Your task to perform on an android device: search for starred emails in the gmail app Image 0: 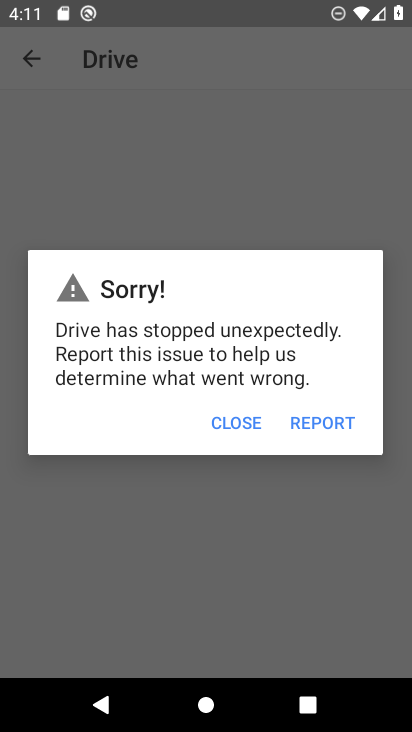
Step 0: press home button
Your task to perform on an android device: search for starred emails in the gmail app Image 1: 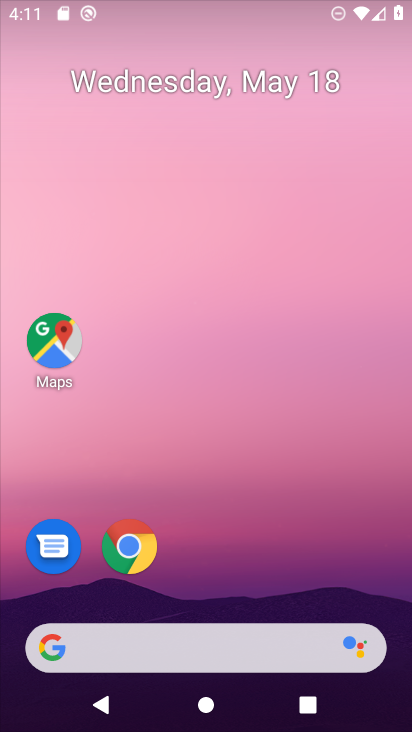
Step 1: drag from (223, 602) to (303, 116)
Your task to perform on an android device: search for starred emails in the gmail app Image 2: 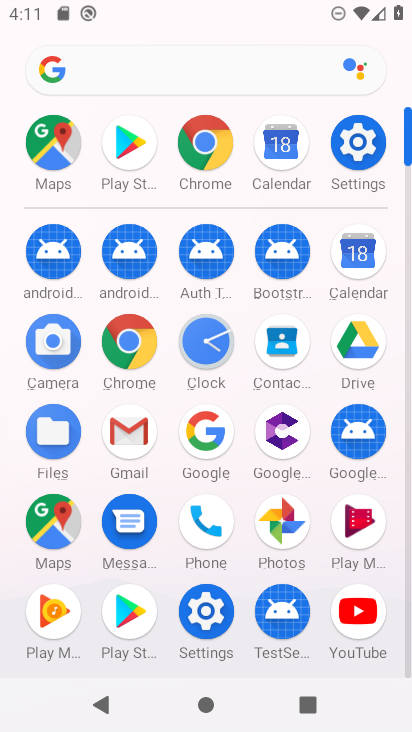
Step 2: click (139, 441)
Your task to perform on an android device: search for starred emails in the gmail app Image 3: 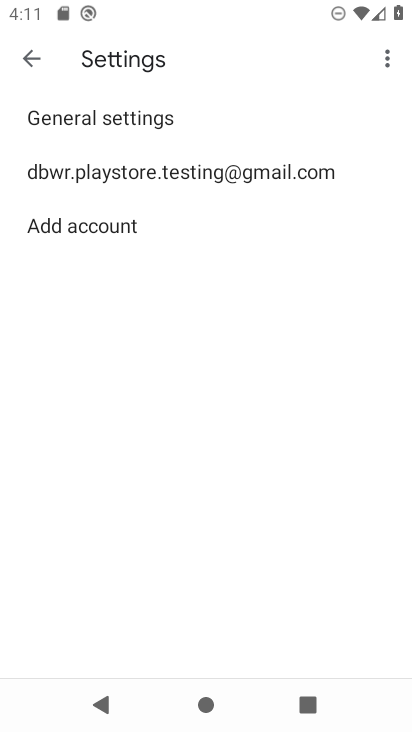
Step 3: click (37, 51)
Your task to perform on an android device: search for starred emails in the gmail app Image 4: 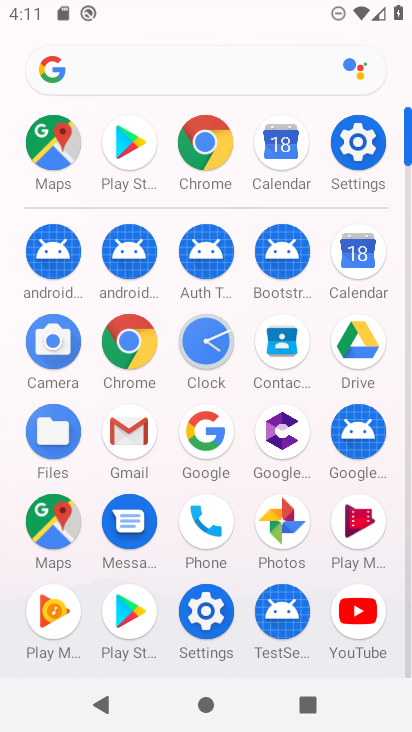
Step 4: click (137, 439)
Your task to perform on an android device: search for starred emails in the gmail app Image 5: 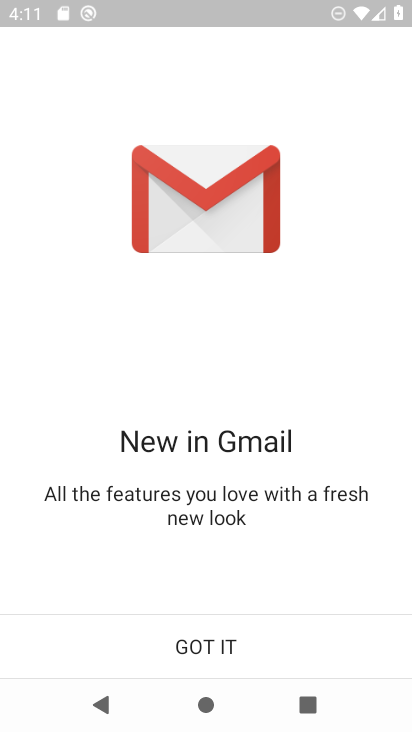
Step 5: click (198, 629)
Your task to perform on an android device: search for starred emails in the gmail app Image 6: 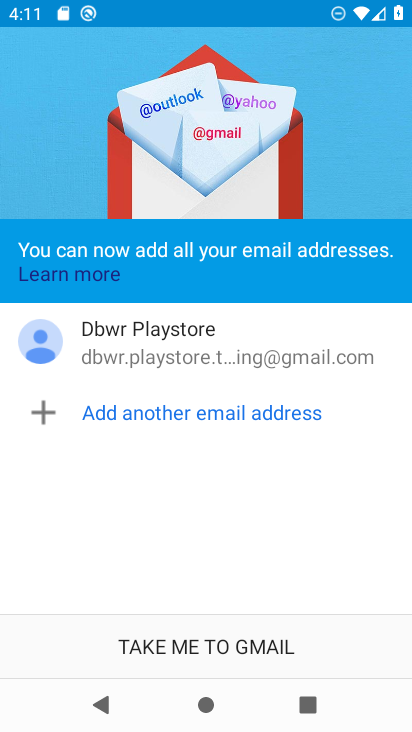
Step 6: click (199, 636)
Your task to perform on an android device: search for starred emails in the gmail app Image 7: 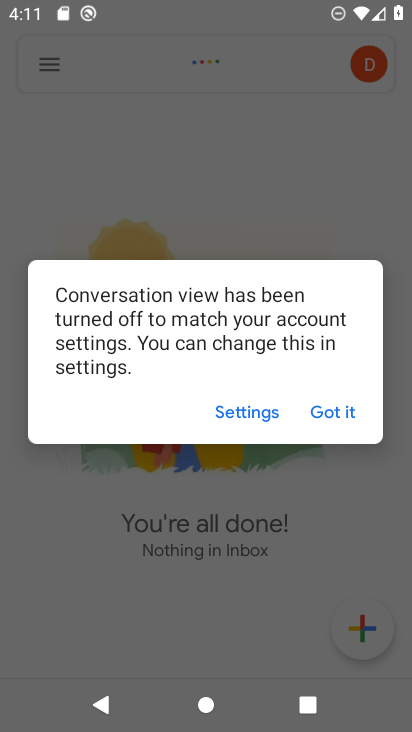
Step 7: click (346, 414)
Your task to perform on an android device: search for starred emails in the gmail app Image 8: 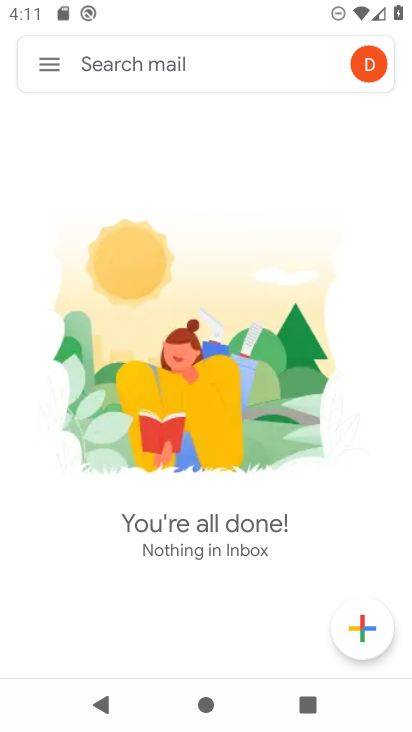
Step 8: click (53, 57)
Your task to perform on an android device: search for starred emails in the gmail app Image 9: 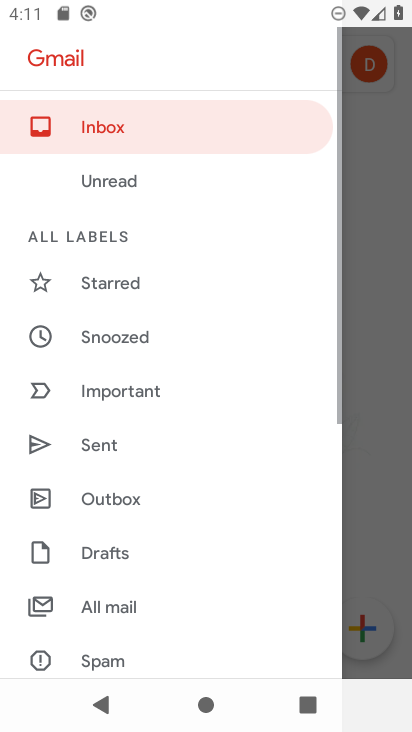
Step 9: click (139, 290)
Your task to perform on an android device: search for starred emails in the gmail app Image 10: 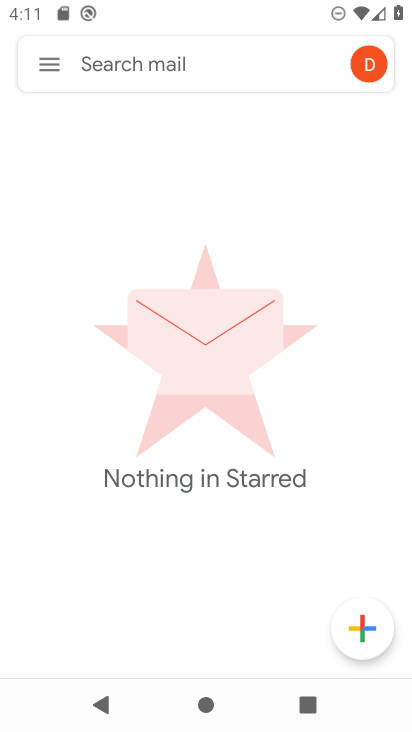
Step 10: task complete